Your task to perform on an android device: Do I have any events this weekend? Image 0: 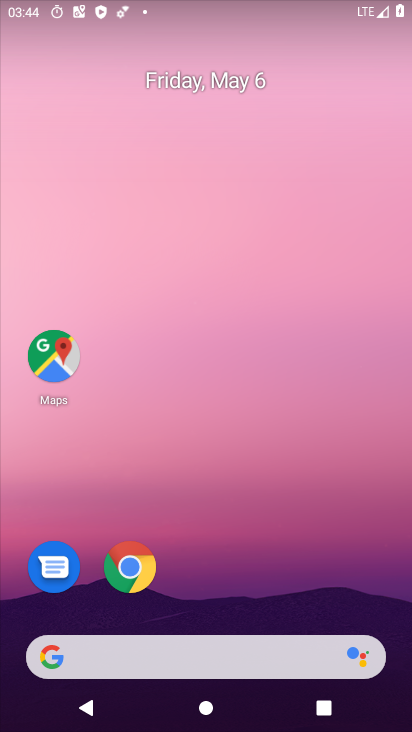
Step 0: drag from (196, 439) to (238, 228)
Your task to perform on an android device: Do I have any events this weekend? Image 1: 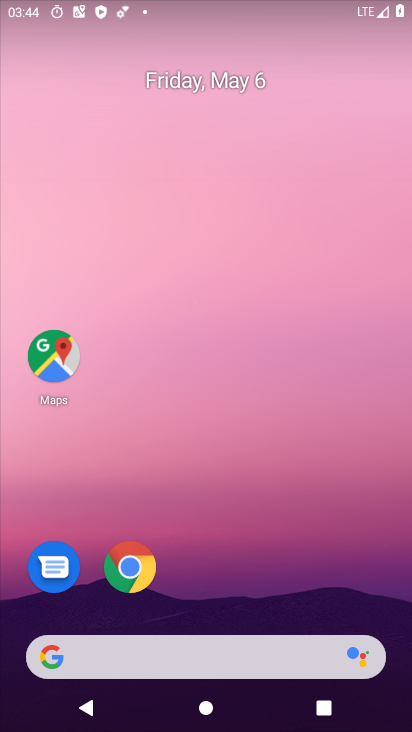
Step 1: drag from (155, 603) to (220, 184)
Your task to perform on an android device: Do I have any events this weekend? Image 2: 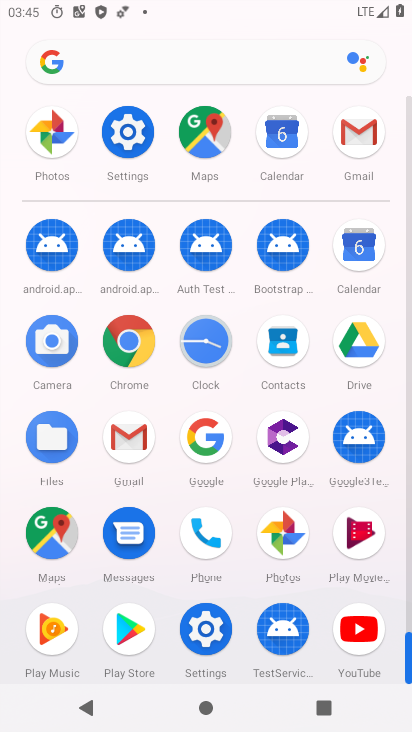
Step 2: click (356, 258)
Your task to perform on an android device: Do I have any events this weekend? Image 3: 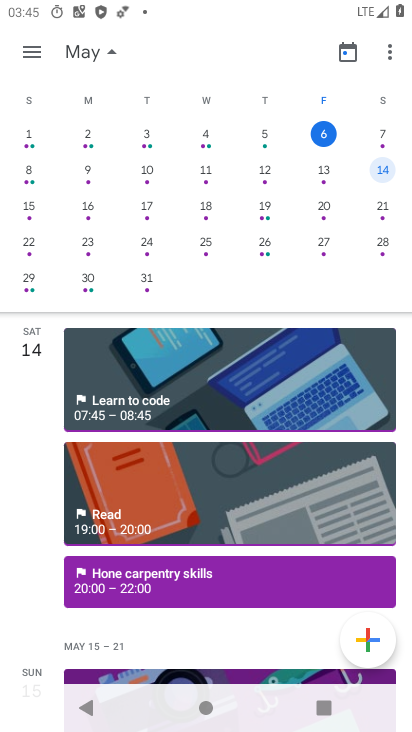
Step 3: click (383, 140)
Your task to perform on an android device: Do I have any events this weekend? Image 4: 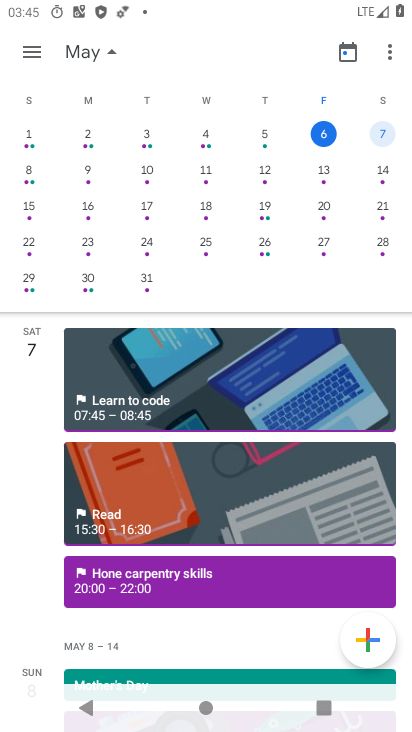
Step 4: click (32, 175)
Your task to perform on an android device: Do I have any events this weekend? Image 5: 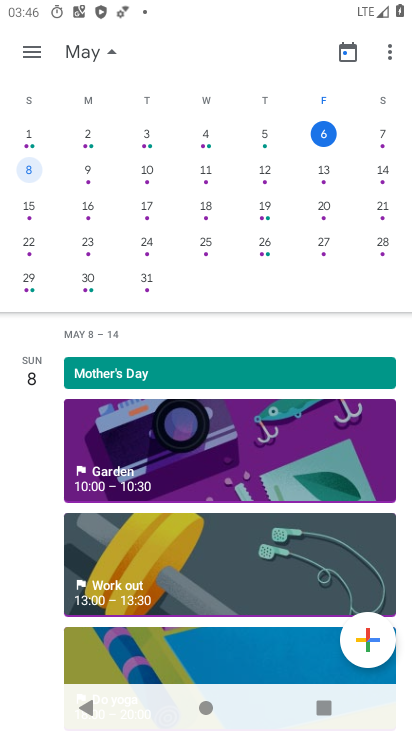
Step 5: task complete